Your task to perform on an android device: turn on improve location accuracy Image 0: 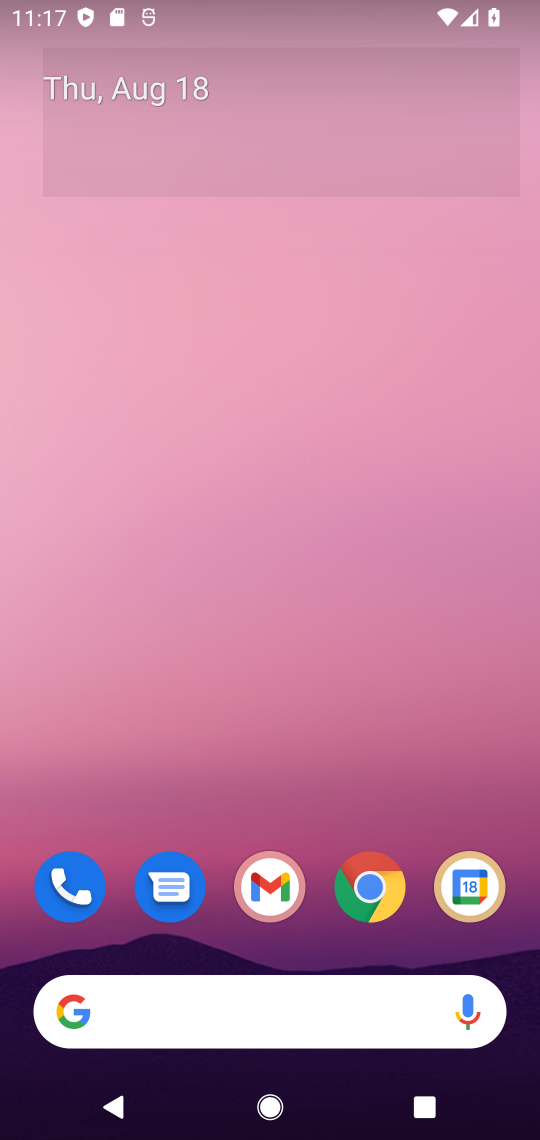
Step 0: drag from (4, 1079) to (240, 496)
Your task to perform on an android device: turn on improve location accuracy Image 1: 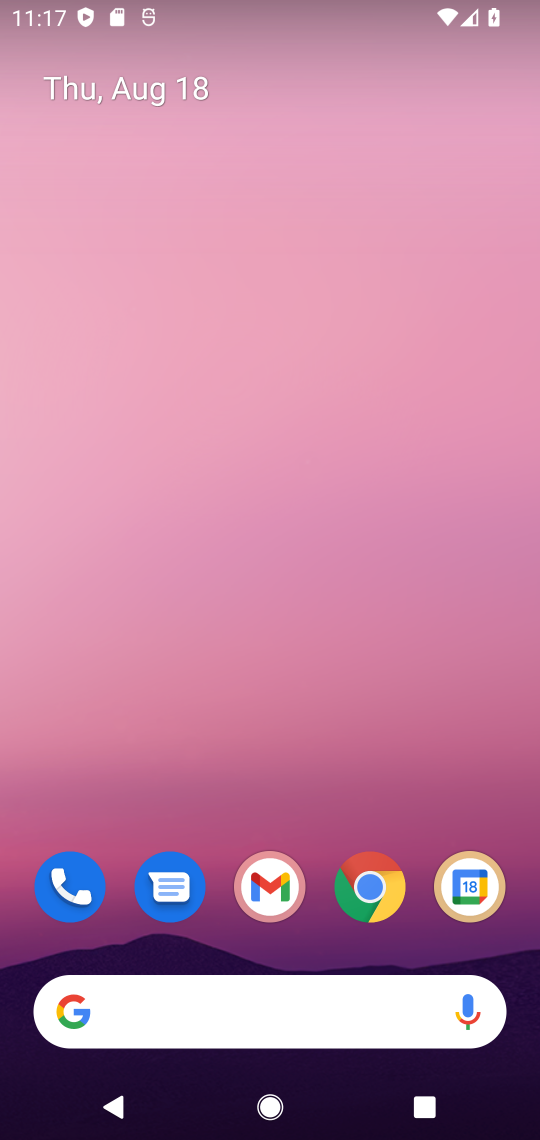
Step 1: drag from (32, 1065) to (255, 463)
Your task to perform on an android device: turn on improve location accuracy Image 2: 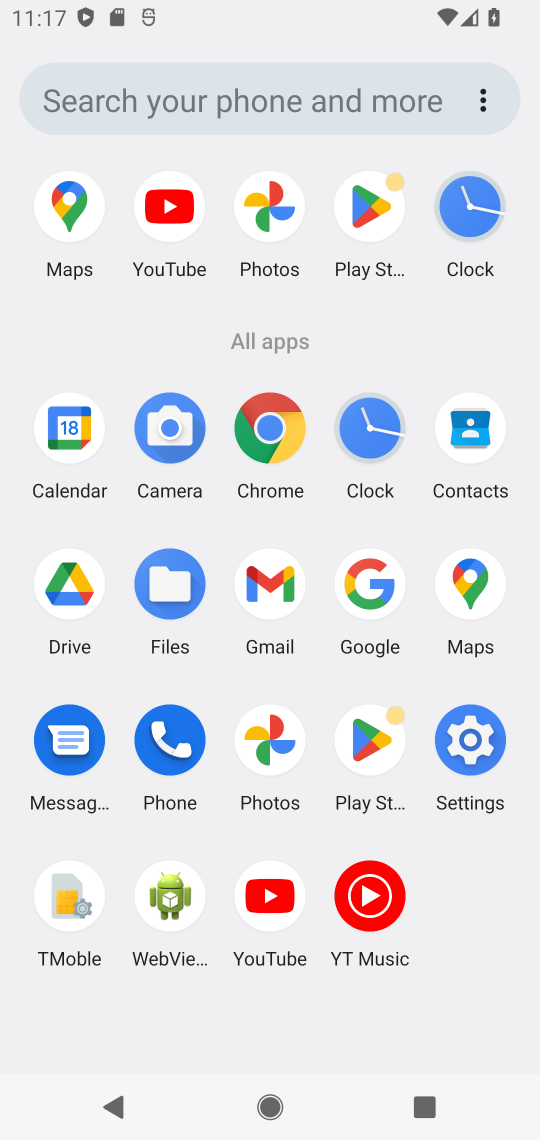
Step 2: click (475, 756)
Your task to perform on an android device: turn on improve location accuracy Image 3: 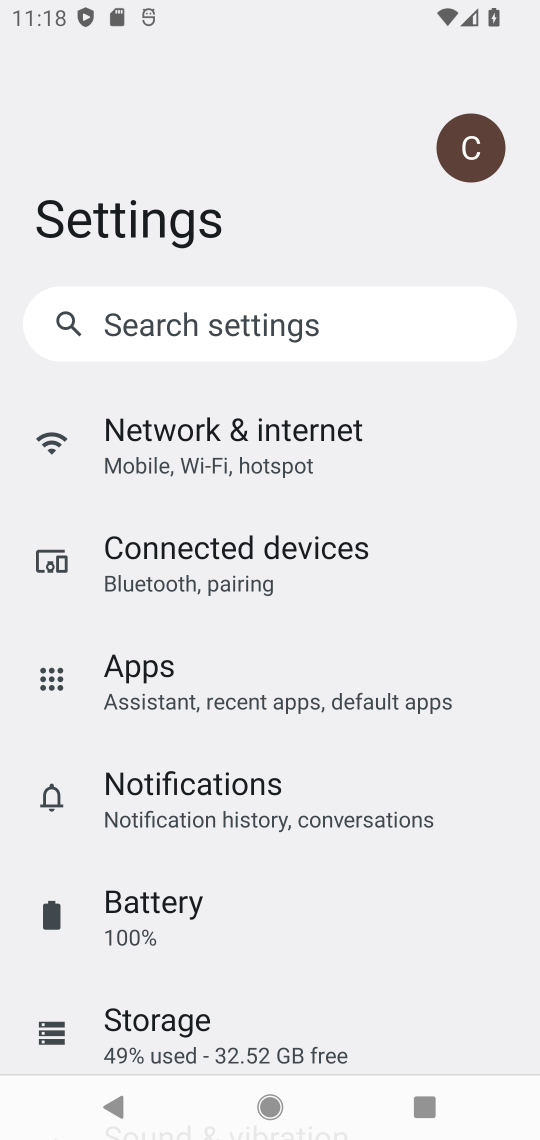
Step 3: drag from (437, 987) to (401, 431)
Your task to perform on an android device: turn on improve location accuracy Image 4: 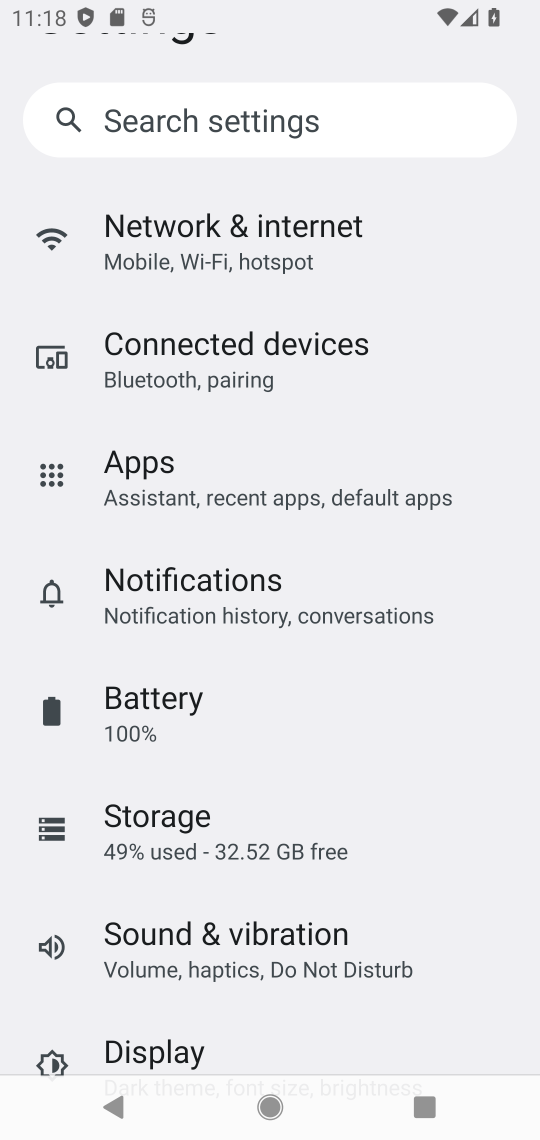
Step 4: drag from (442, 984) to (361, 521)
Your task to perform on an android device: turn on improve location accuracy Image 5: 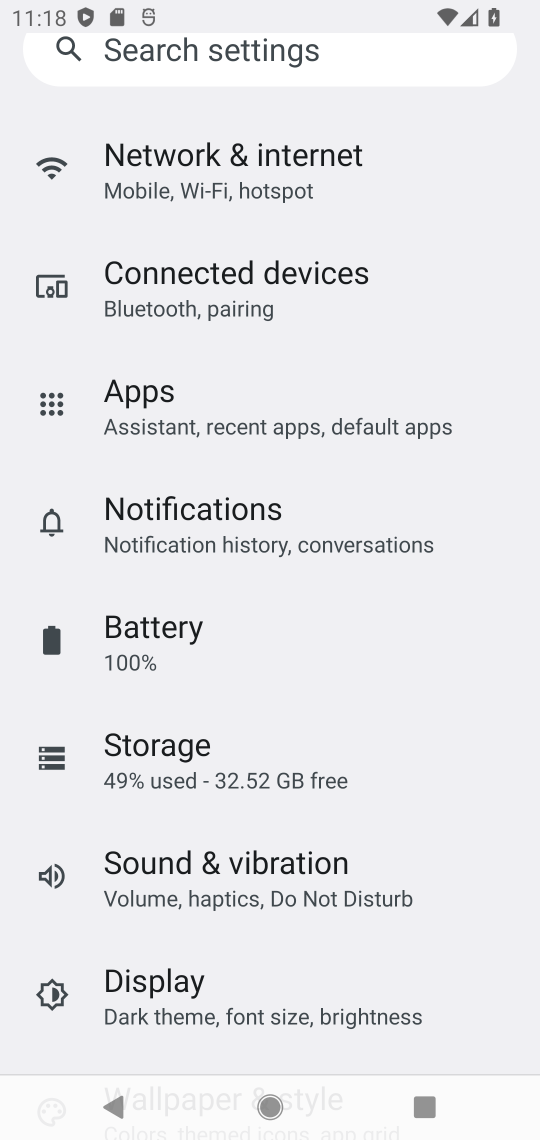
Step 5: drag from (458, 942) to (457, 379)
Your task to perform on an android device: turn on improve location accuracy Image 6: 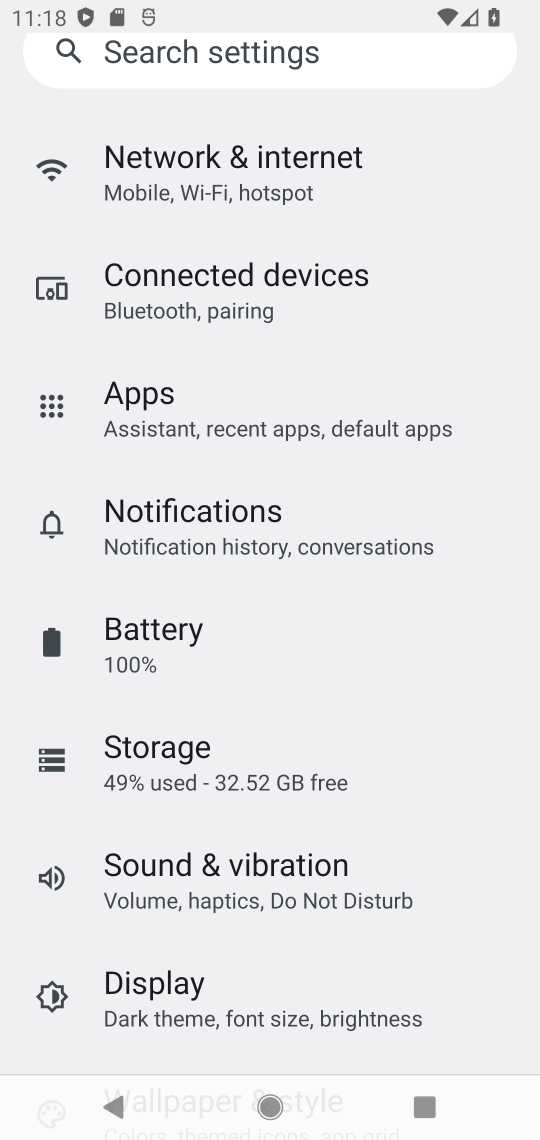
Step 6: drag from (483, 1037) to (364, 454)
Your task to perform on an android device: turn on improve location accuracy Image 7: 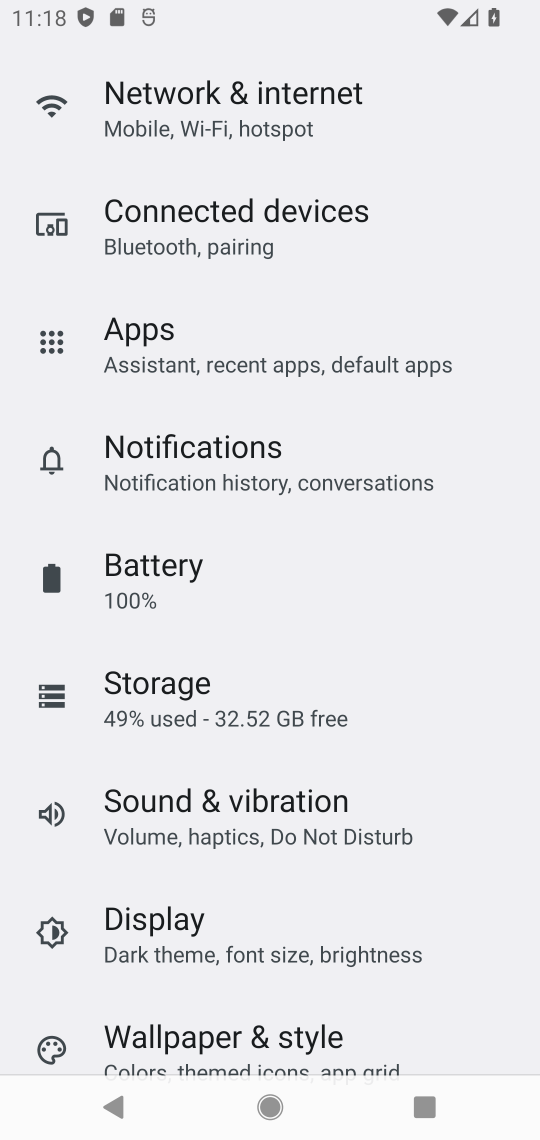
Step 7: drag from (465, 986) to (436, 352)
Your task to perform on an android device: turn on improve location accuracy Image 8: 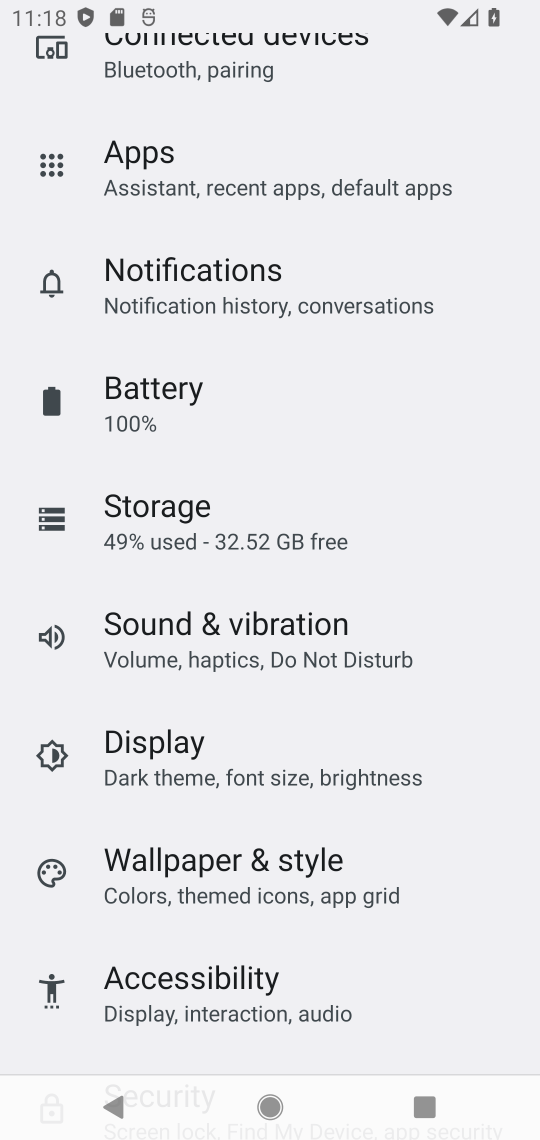
Step 8: drag from (415, 1006) to (378, 272)
Your task to perform on an android device: turn on improve location accuracy Image 9: 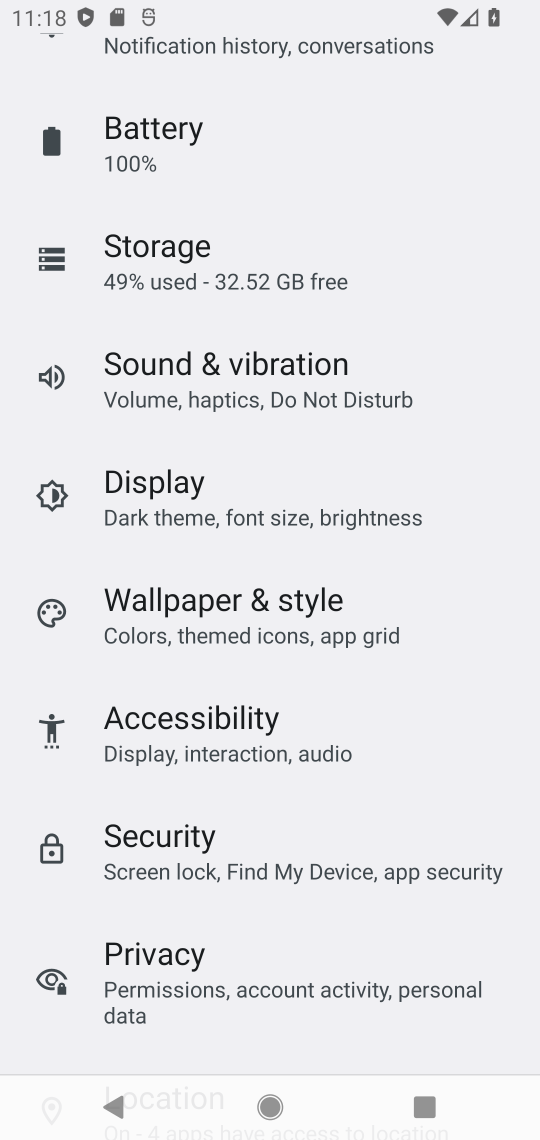
Step 9: drag from (502, 1033) to (362, 410)
Your task to perform on an android device: turn on improve location accuracy Image 10: 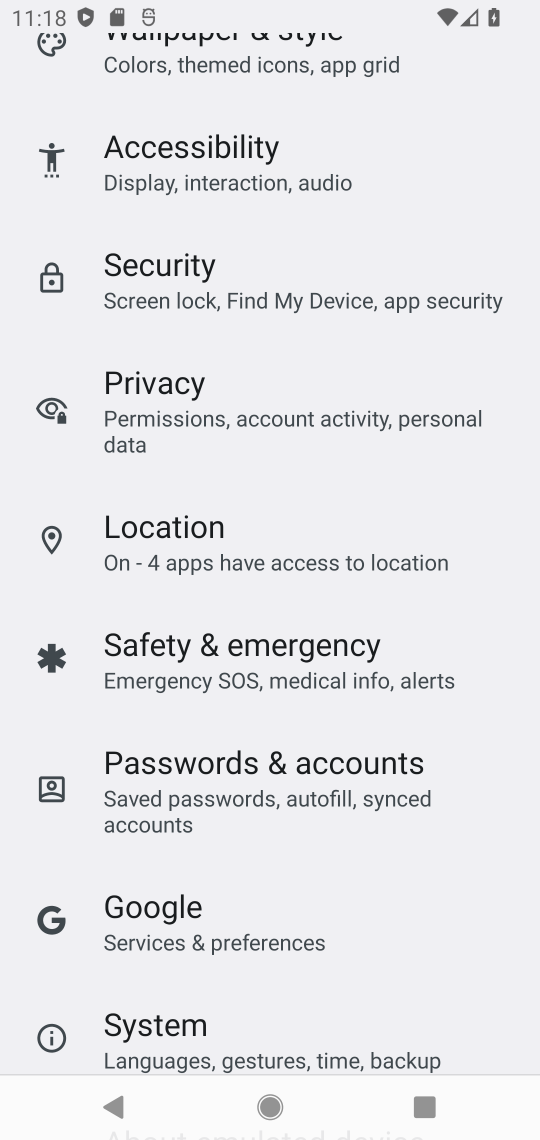
Step 10: click (158, 524)
Your task to perform on an android device: turn on improve location accuracy Image 11: 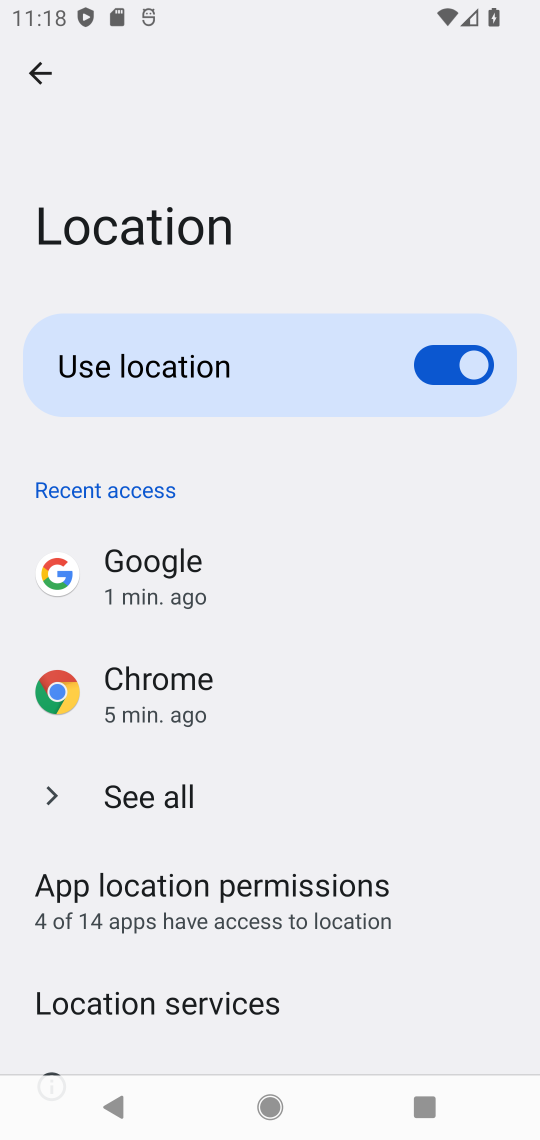
Step 11: drag from (432, 958) to (367, 514)
Your task to perform on an android device: turn on improve location accuracy Image 12: 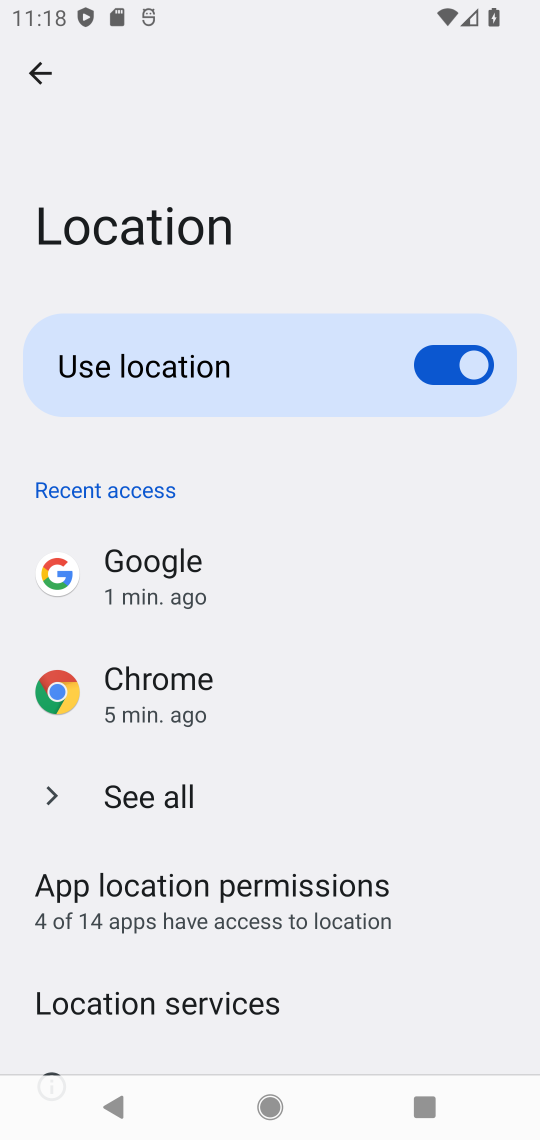
Step 12: drag from (448, 967) to (271, 435)
Your task to perform on an android device: turn on improve location accuracy Image 13: 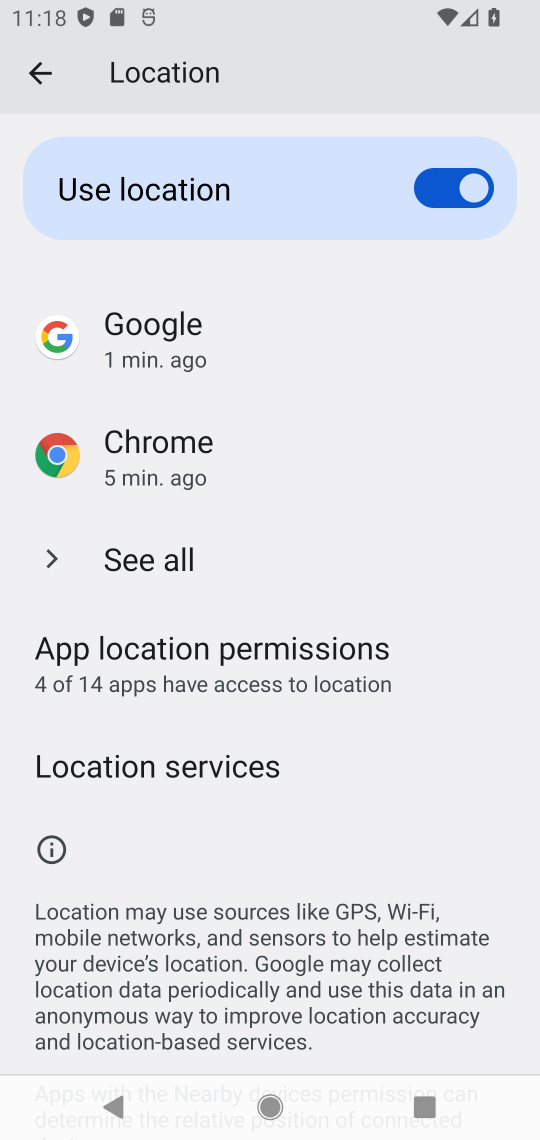
Step 13: drag from (451, 439) to (430, 1070)
Your task to perform on an android device: turn on improve location accuracy Image 14: 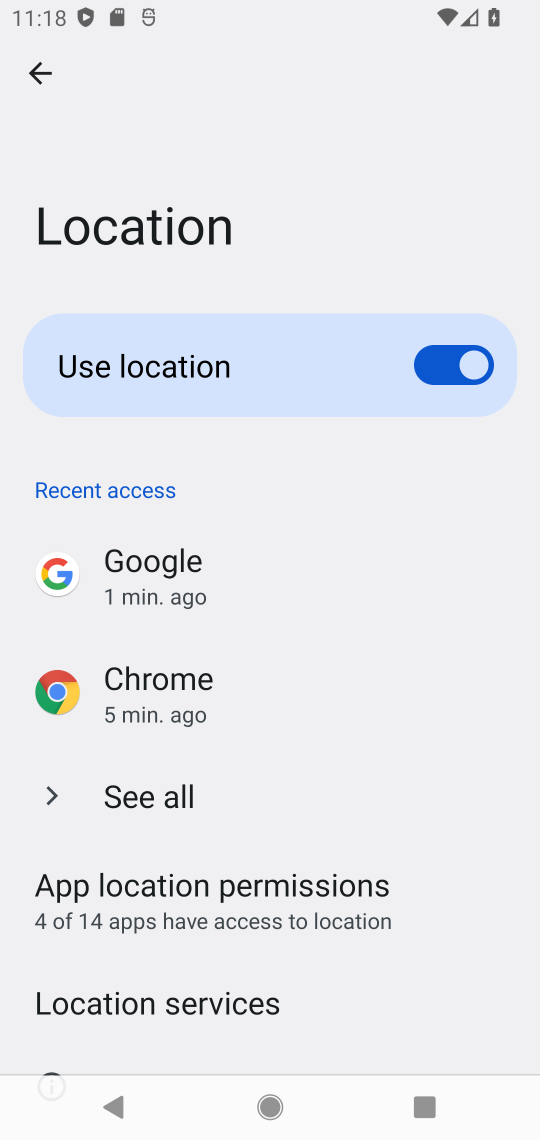
Step 14: drag from (379, 1033) to (287, 541)
Your task to perform on an android device: turn on improve location accuracy Image 15: 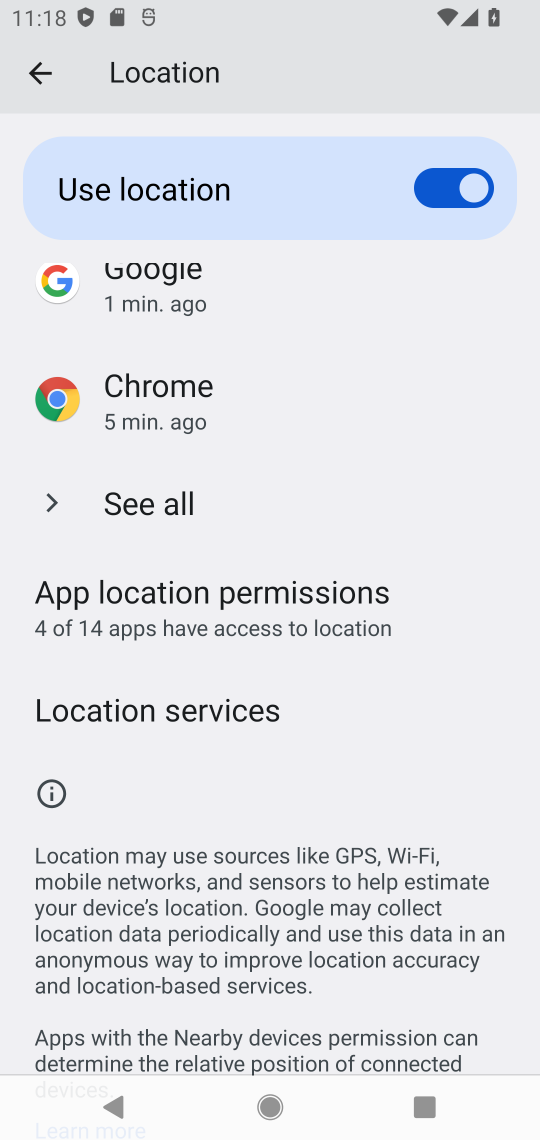
Step 15: click (72, 716)
Your task to perform on an android device: turn on improve location accuracy Image 16: 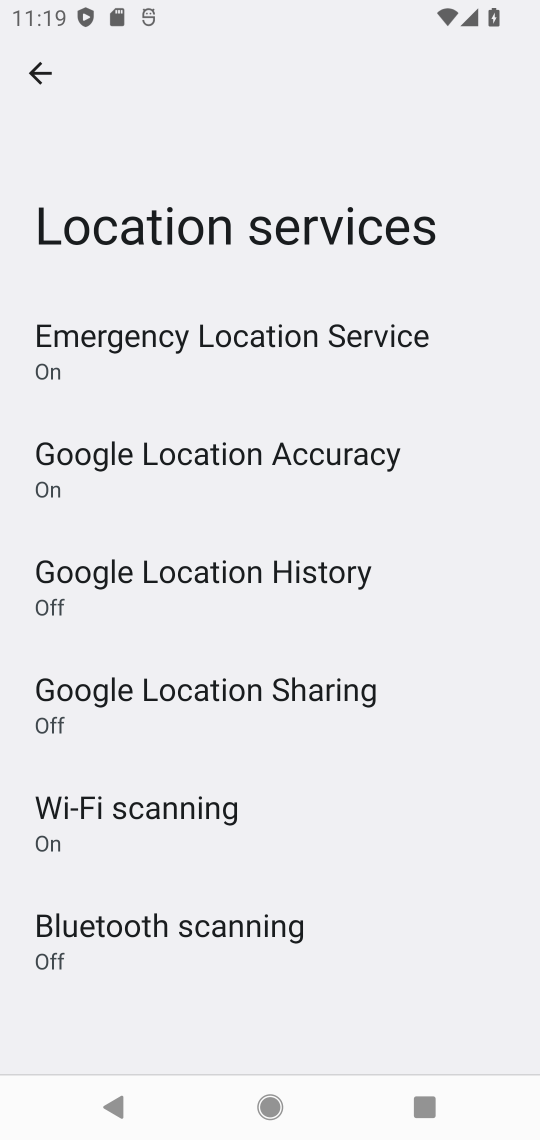
Step 16: task complete